Your task to perform on an android device: turn off location history Image 0: 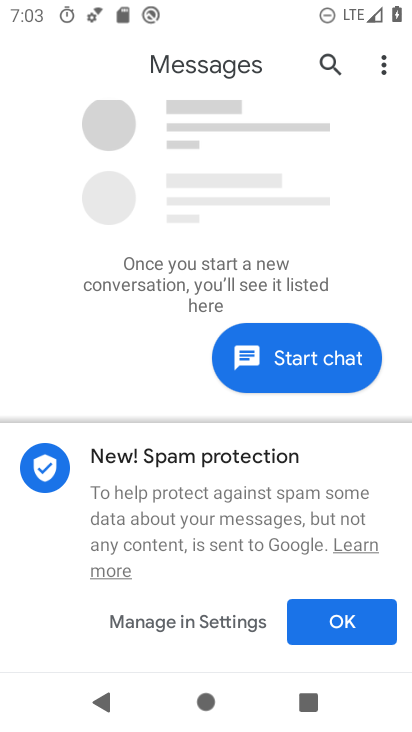
Step 0: press home button
Your task to perform on an android device: turn off location history Image 1: 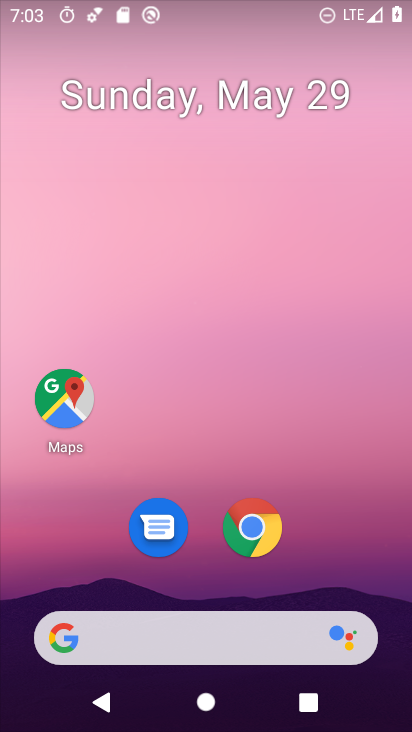
Step 1: drag from (407, 622) to (222, 8)
Your task to perform on an android device: turn off location history Image 2: 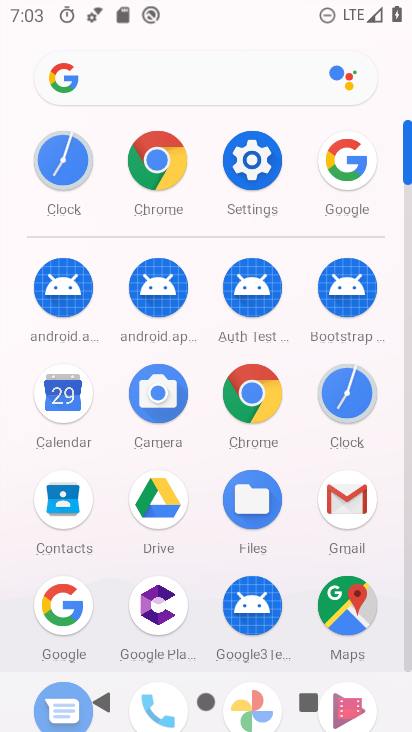
Step 2: click (249, 162)
Your task to perform on an android device: turn off location history Image 3: 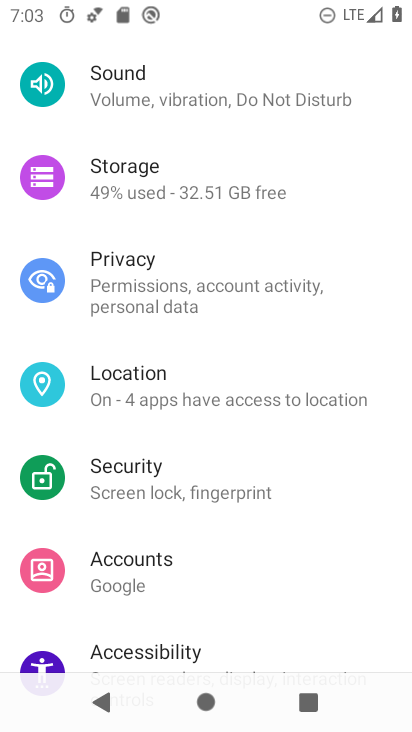
Step 3: click (163, 404)
Your task to perform on an android device: turn off location history Image 4: 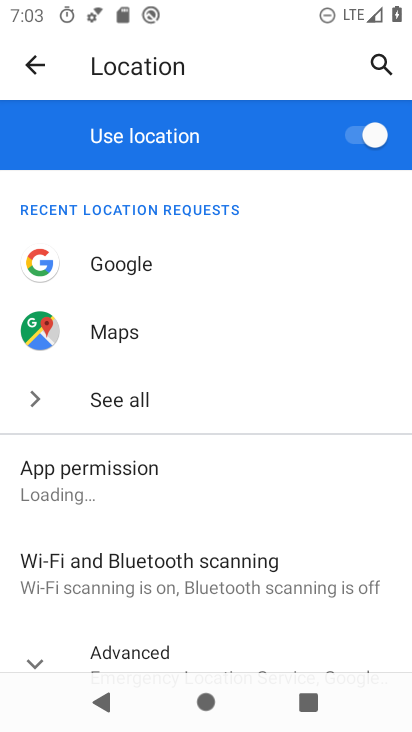
Step 4: click (180, 655)
Your task to perform on an android device: turn off location history Image 5: 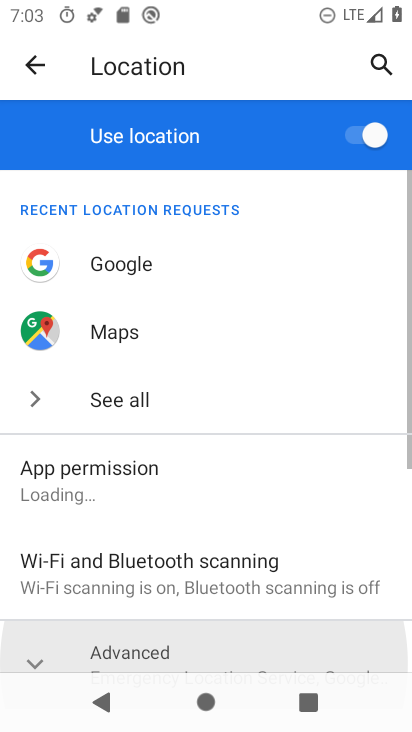
Step 5: drag from (181, 656) to (196, 138)
Your task to perform on an android device: turn off location history Image 6: 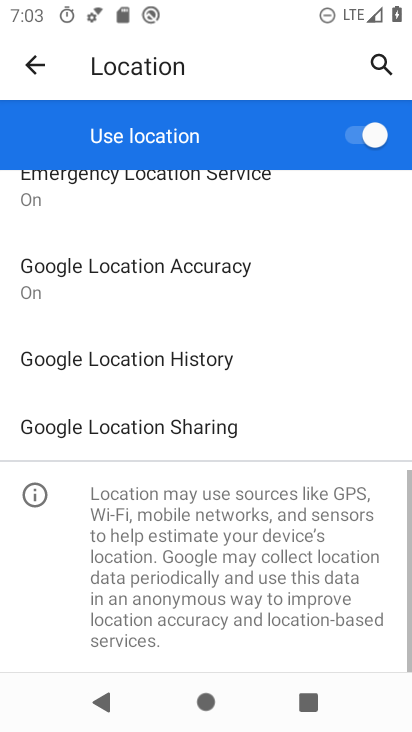
Step 6: click (176, 355)
Your task to perform on an android device: turn off location history Image 7: 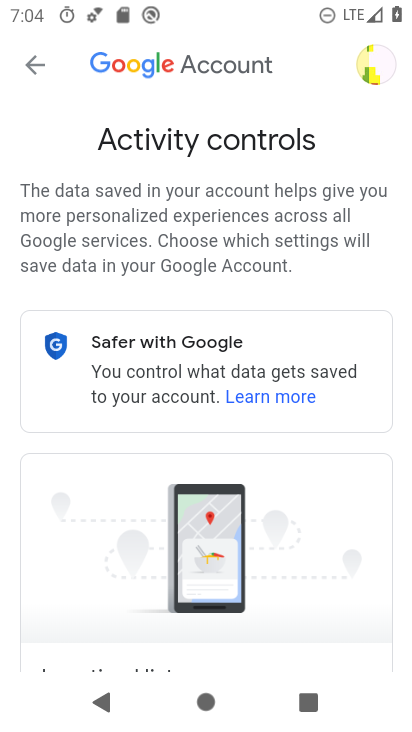
Step 7: task complete